Your task to perform on an android device: delete the emails in spam in the gmail app Image 0: 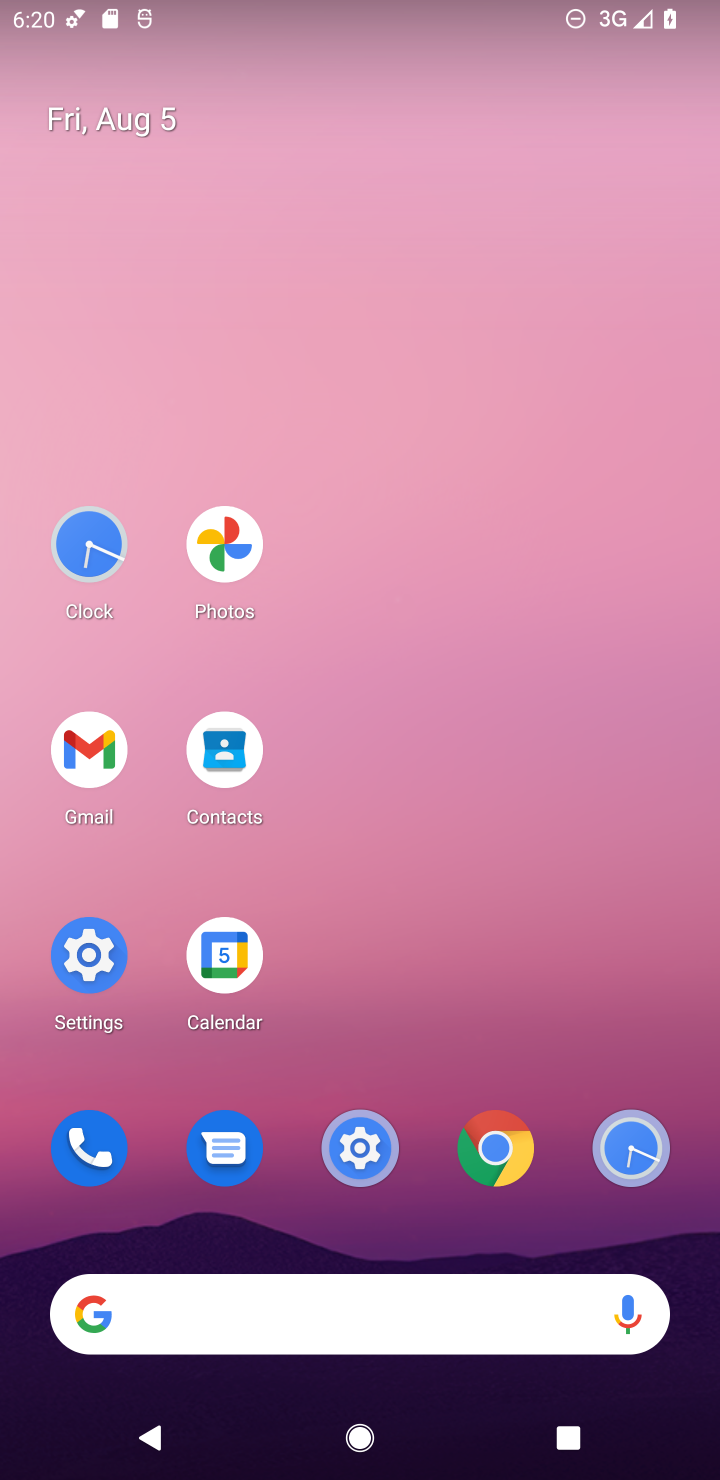
Step 0: click (89, 749)
Your task to perform on an android device: delete the emails in spam in the gmail app Image 1: 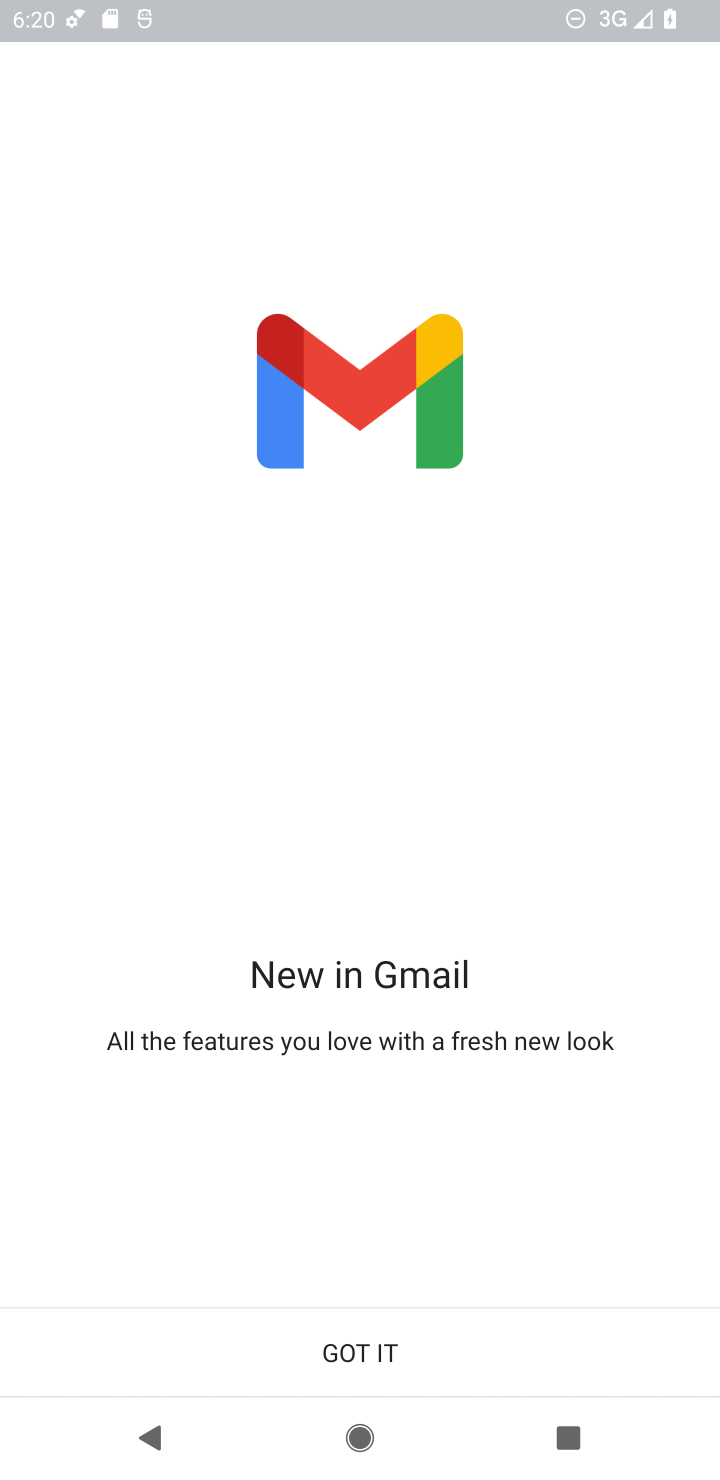
Step 1: click (354, 1343)
Your task to perform on an android device: delete the emails in spam in the gmail app Image 2: 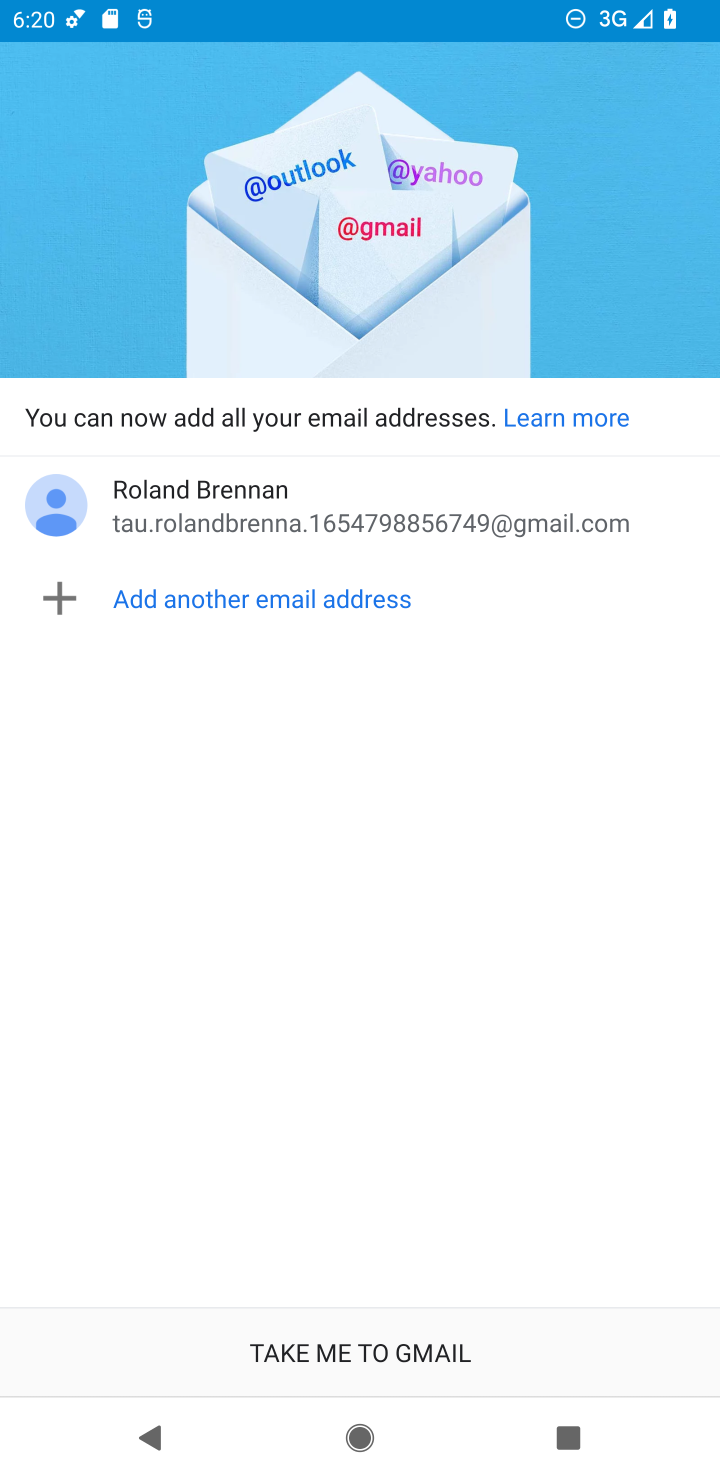
Step 2: click (354, 1343)
Your task to perform on an android device: delete the emails in spam in the gmail app Image 3: 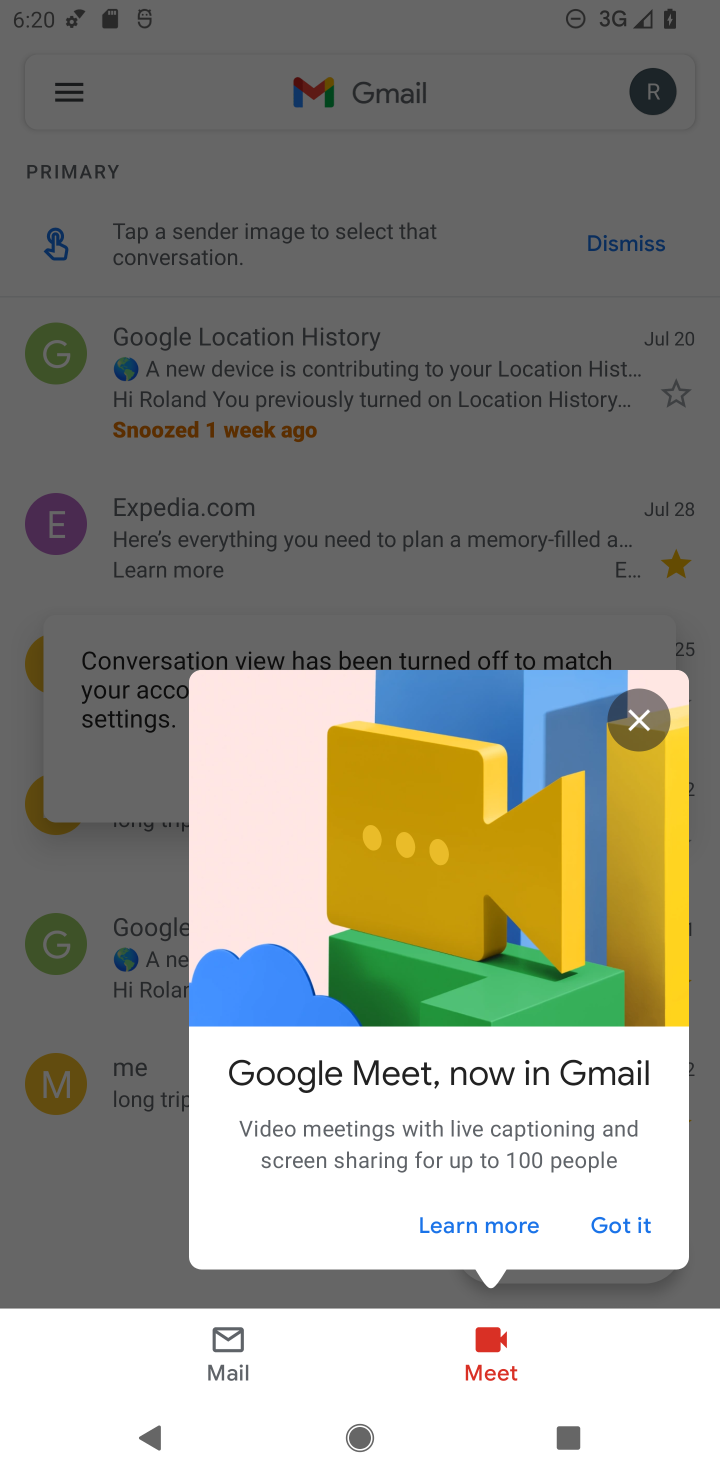
Step 3: click (634, 714)
Your task to perform on an android device: delete the emails in spam in the gmail app Image 4: 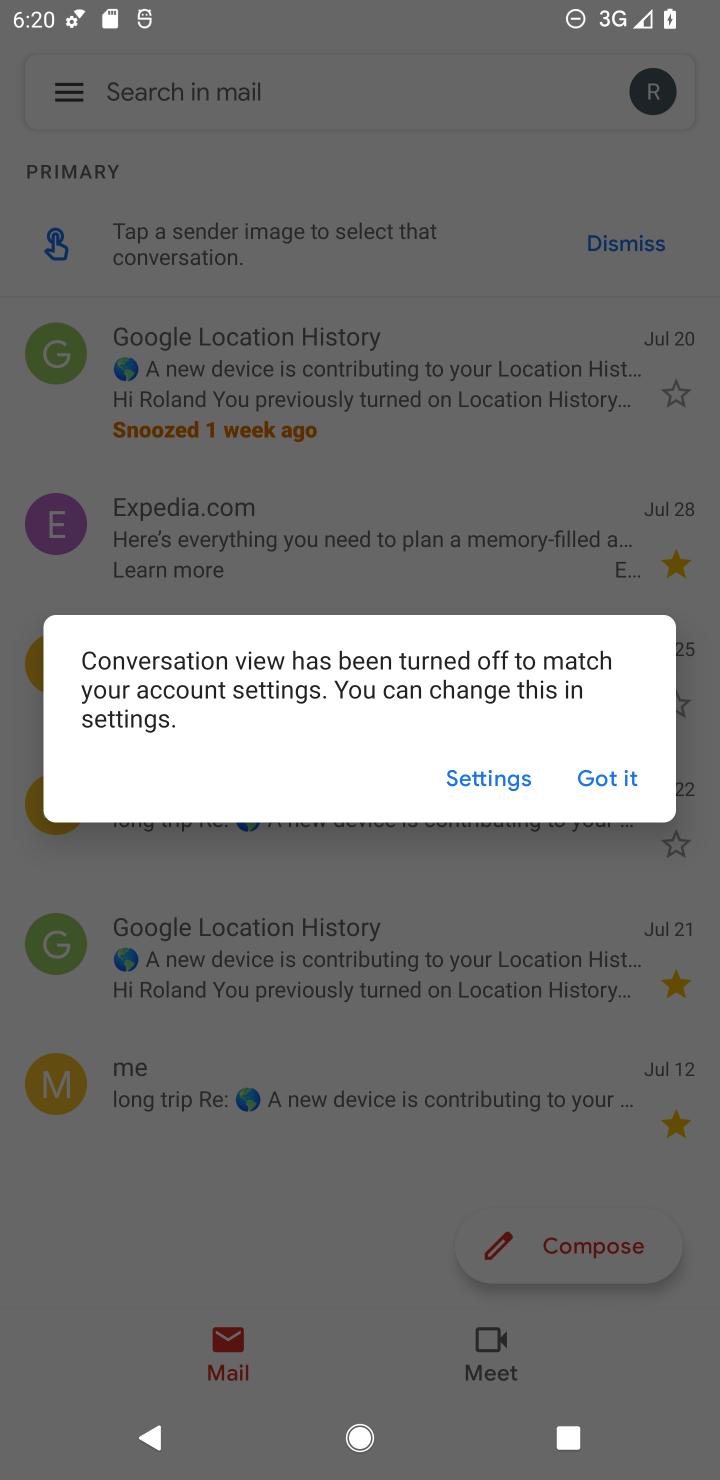
Step 4: click (610, 768)
Your task to perform on an android device: delete the emails in spam in the gmail app Image 5: 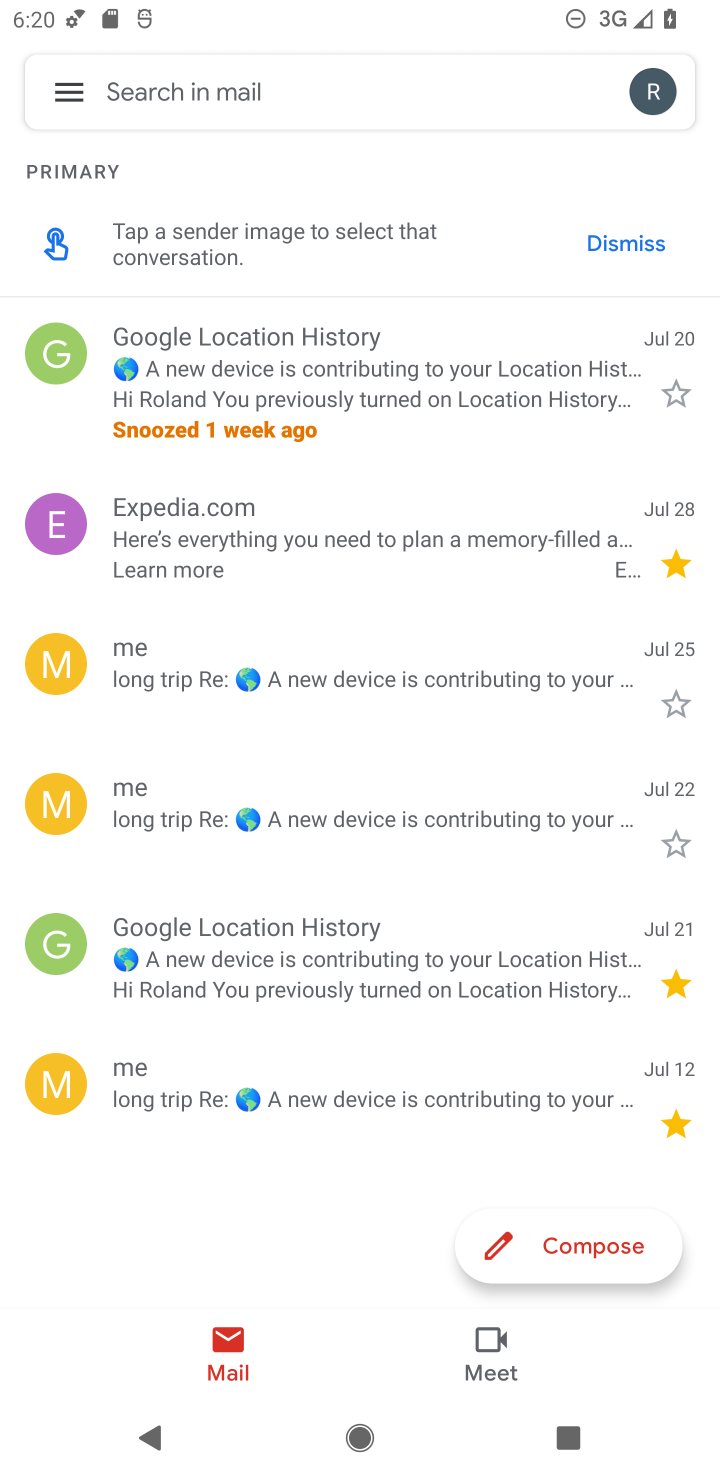
Step 5: click (74, 89)
Your task to perform on an android device: delete the emails in spam in the gmail app Image 6: 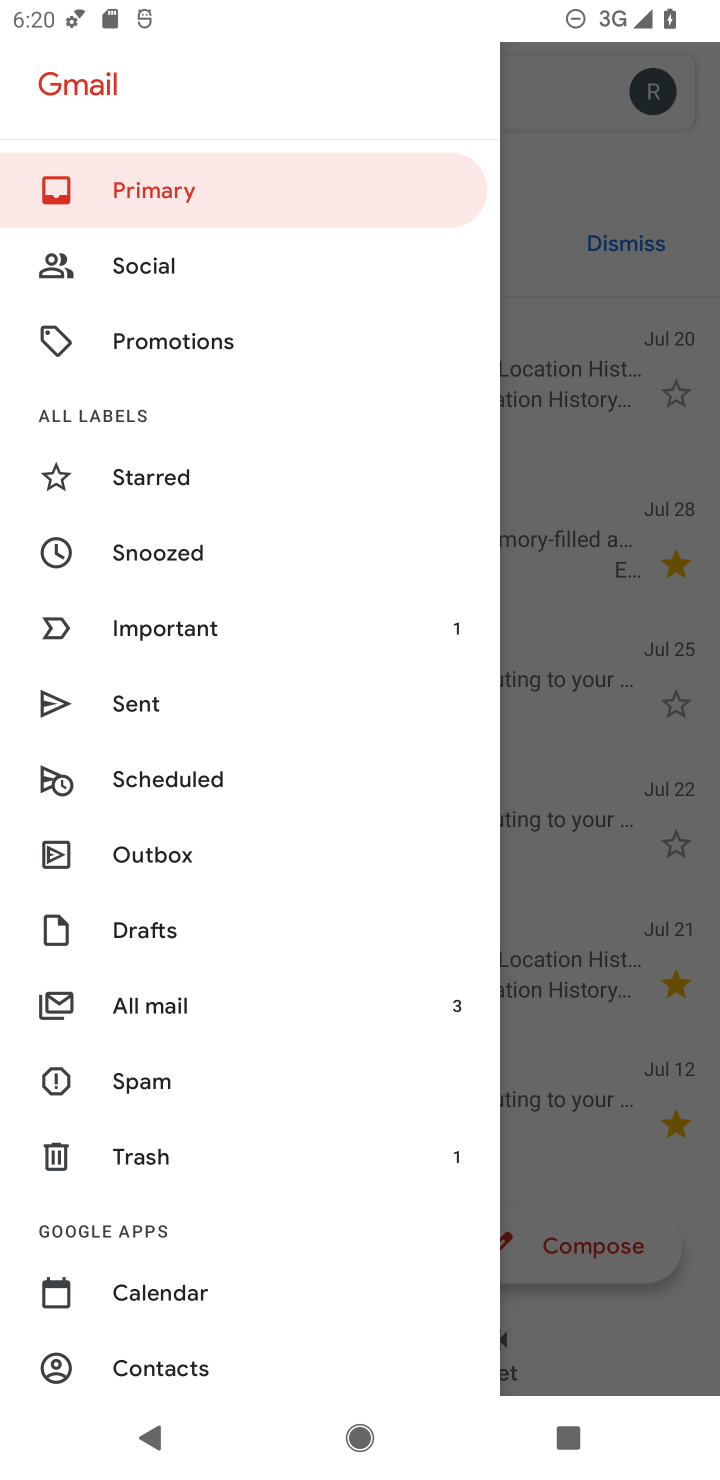
Step 6: click (125, 1083)
Your task to perform on an android device: delete the emails in spam in the gmail app Image 7: 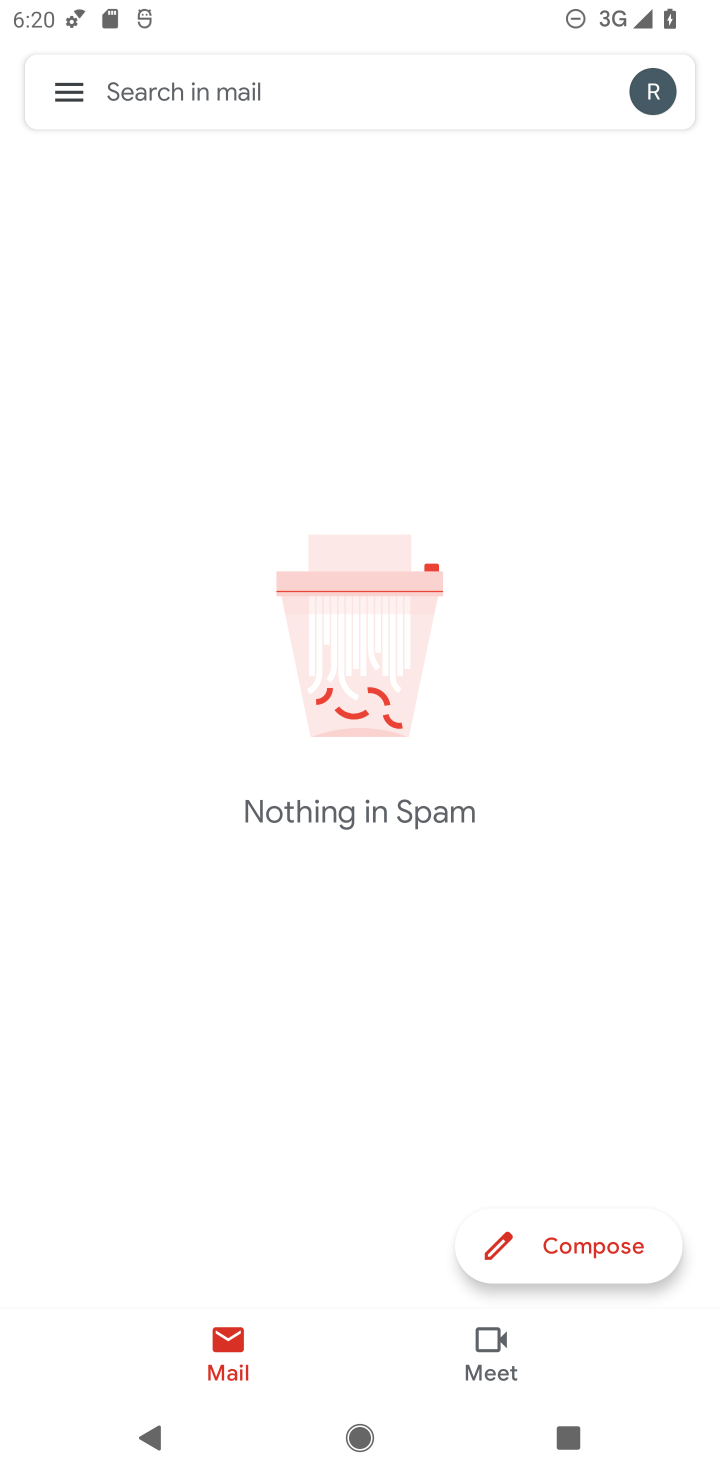
Step 7: task complete